Your task to perform on an android device: Set the phone to "Do not disturb". Image 0: 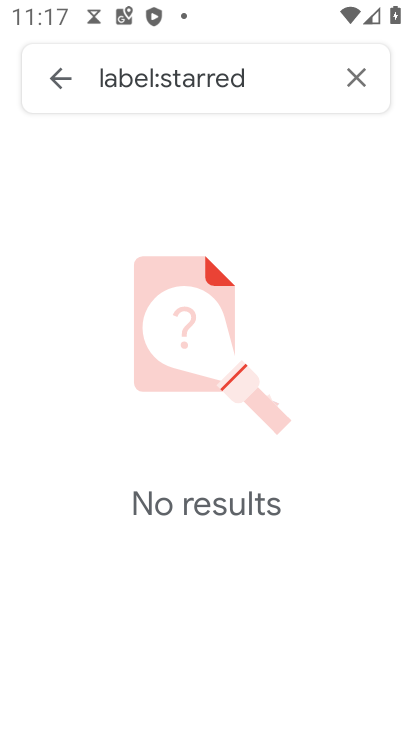
Step 0: press home button
Your task to perform on an android device: Set the phone to "Do not disturb". Image 1: 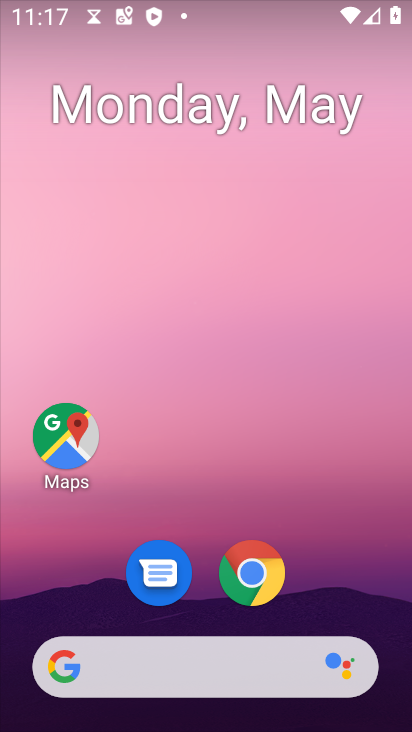
Step 1: drag from (352, 563) to (282, 27)
Your task to perform on an android device: Set the phone to "Do not disturb". Image 2: 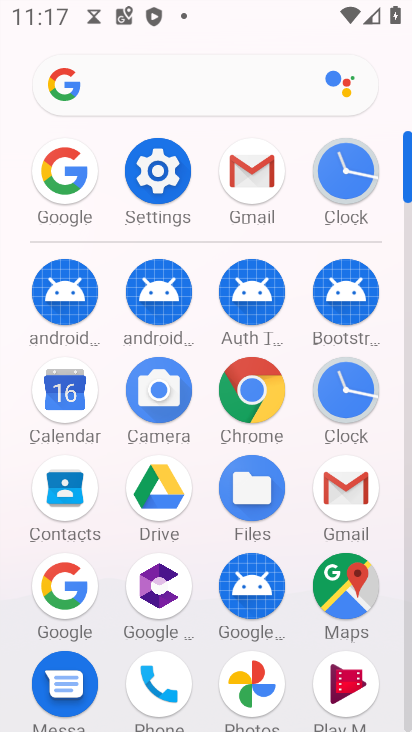
Step 2: click (154, 173)
Your task to perform on an android device: Set the phone to "Do not disturb". Image 3: 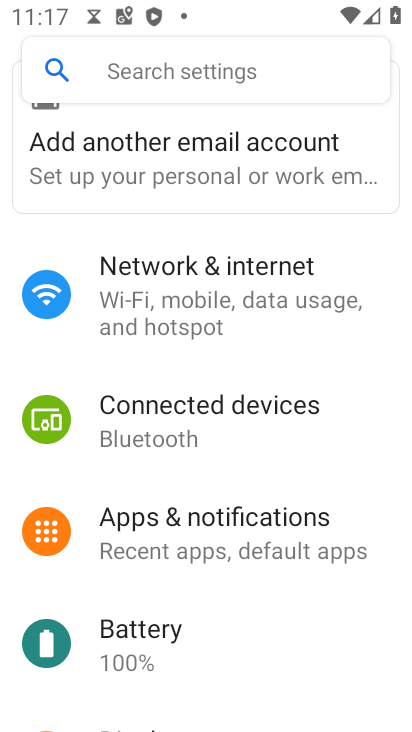
Step 3: drag from (252, 607) to (259, 270)
Your task to perform on an android device: Set the phone to "Do not disturb". Image 4: 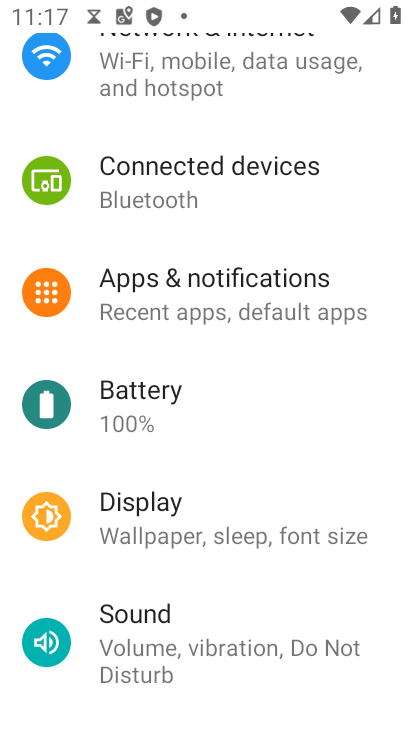
Step 4: click (184, 610)
Your task to perform on an android device: Set the phone to "Do not disturb". Image 5: 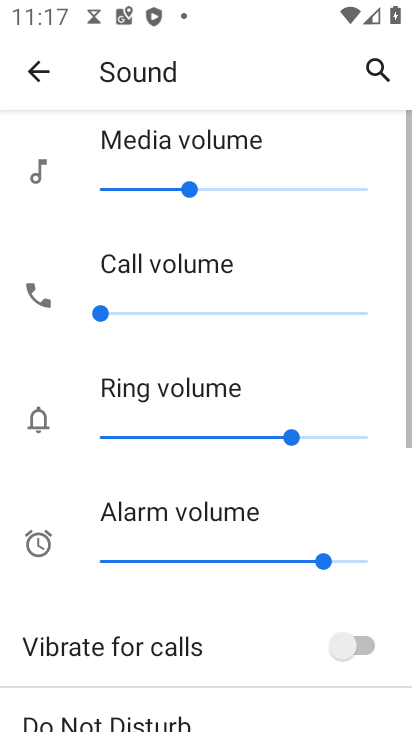
Step 5: drag from (228, 562) to (241, 172)
Your task to perform on an android device: Set the phone to "Do not disturb". Image 6: 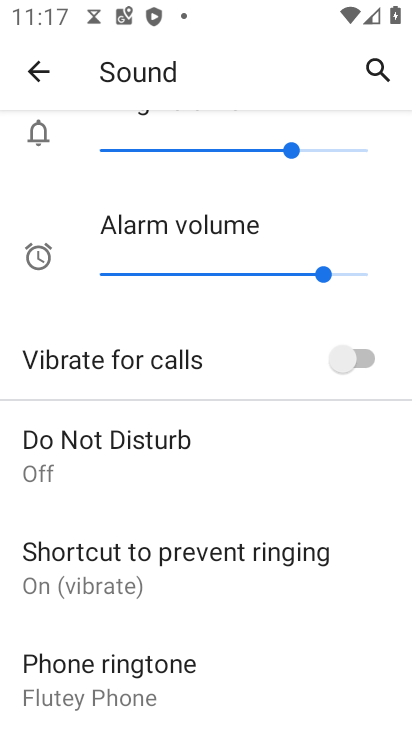
Step 6: click (179, 453)
Your task to perform on an android device: Set the phone to "Do not disturb". Image 7: 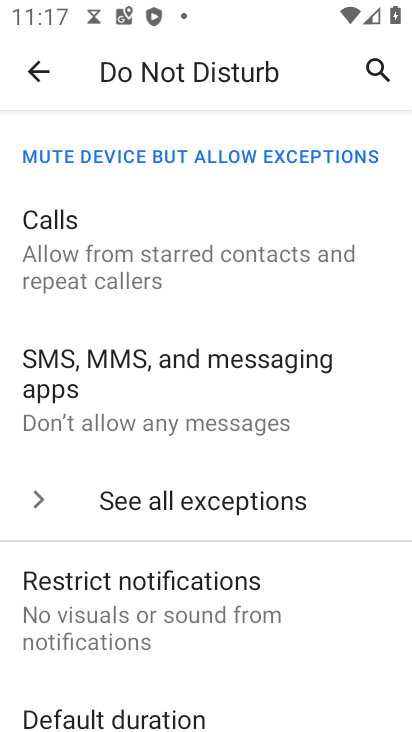
Step 7: drag from (198, 637) to (239, 177)
Your task to perform on an android device: Set the phone to "Do not disturb". Image 8: 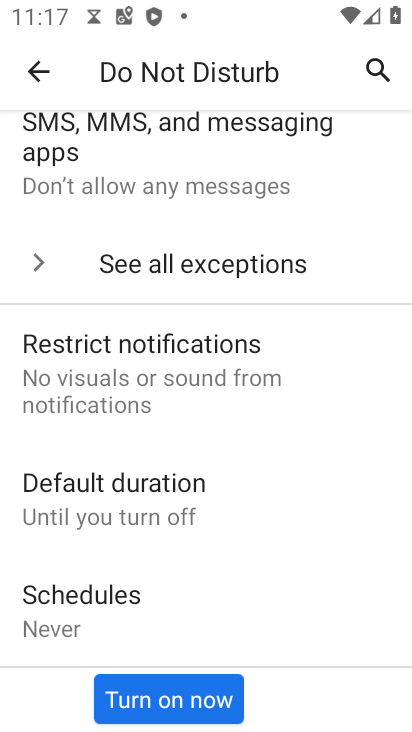
Step 8: click (190, 701)
Your task to perform on an android device: Set the phone to "Do not disturb". Image 9: 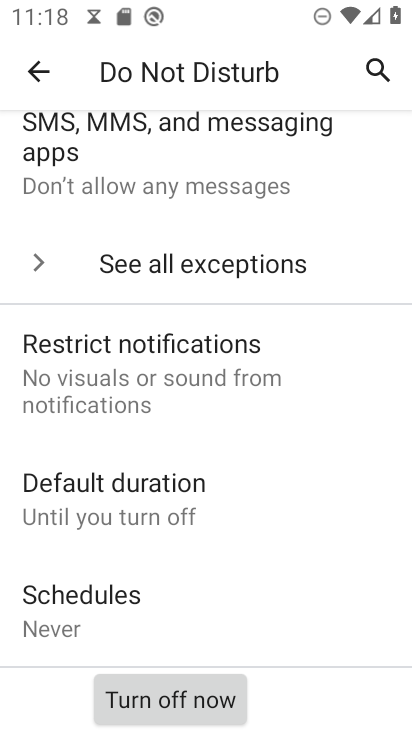
Step 9: task complete